Your task to perform on an android device: Search for Italian restaurants on Maps Image 0: 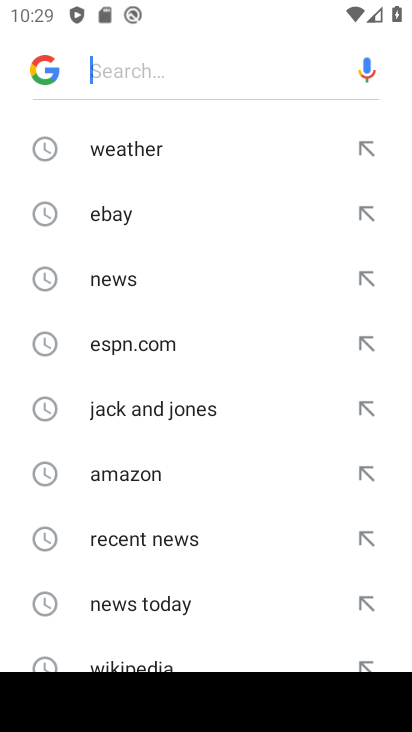
Step 0: press home button
Your task to perform on an android device: Search for Italian restaurants on Maps Image 1: 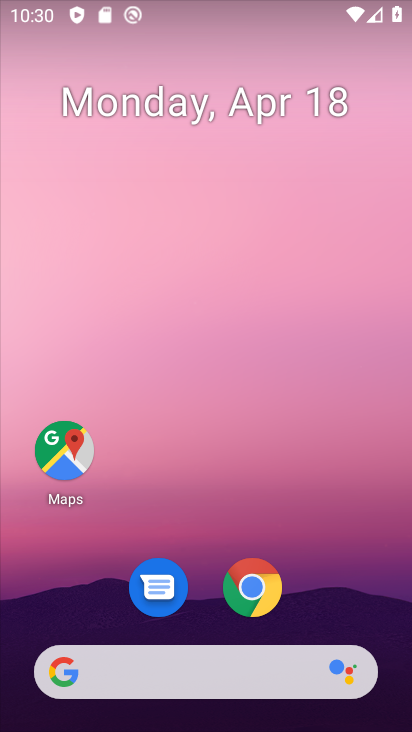
Step 1: click (46, 449)
Your task to perform on an android device: Search for Italian restaurants on Maps Image 2: 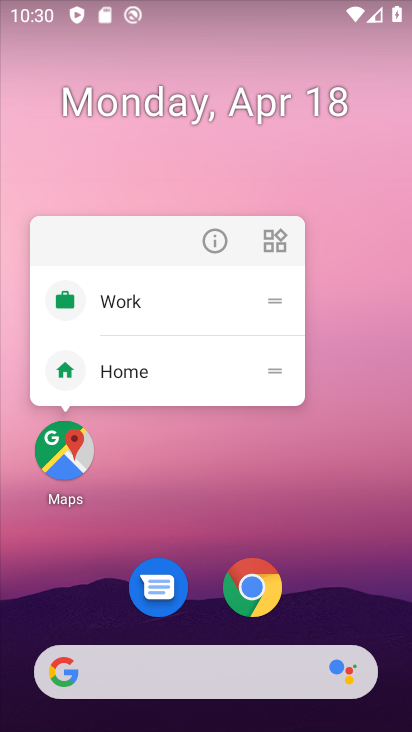
Step 2: click (80, 472)
Your task to perform on an android device: Search for Italian restaurants on Maps Image 3: 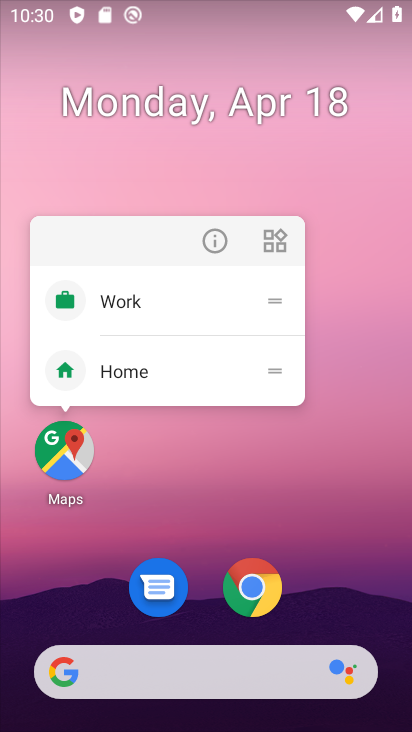
Step 3: click (111, 468)
Your task to perform on an android device: Search for Italian restaurants on Maps Image 4: 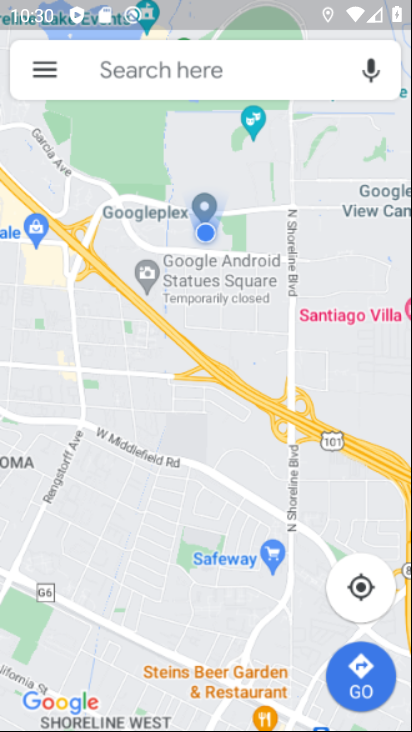
Step 4: click (80, 468)
Your task to perform on an android device: Search for Italian restaurants on Maps Image 5: 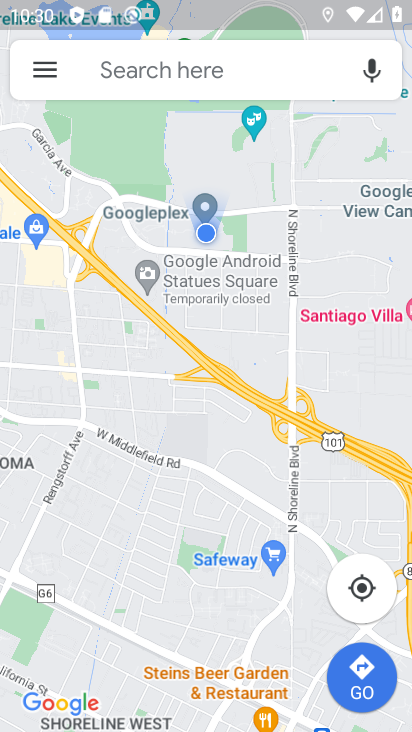
Step 5: click (121, 75)
Your task to perform on an android device: Search for Italian restaurants on Maps Image 6: 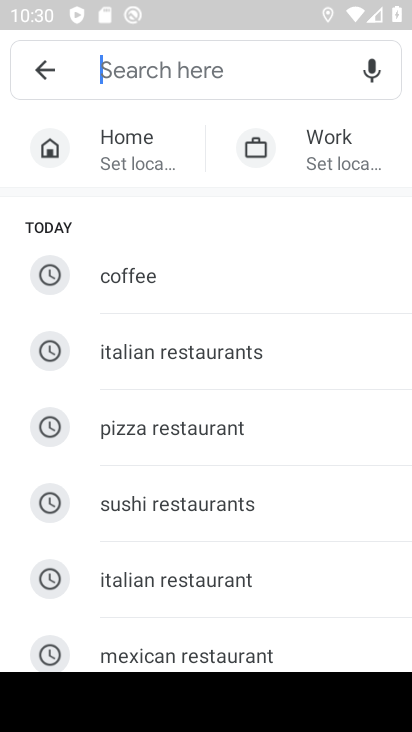
Step 6: click (143, 346)
Your task to perform on an android device: Search for Italian restaurants on Maps Image 7: 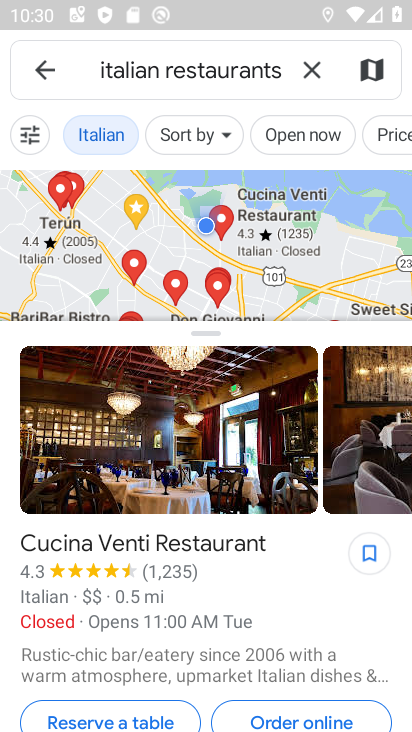
Step 7: task complete